Your task to perform on an android device: uninstall "Indeed Job Search" Image 0: 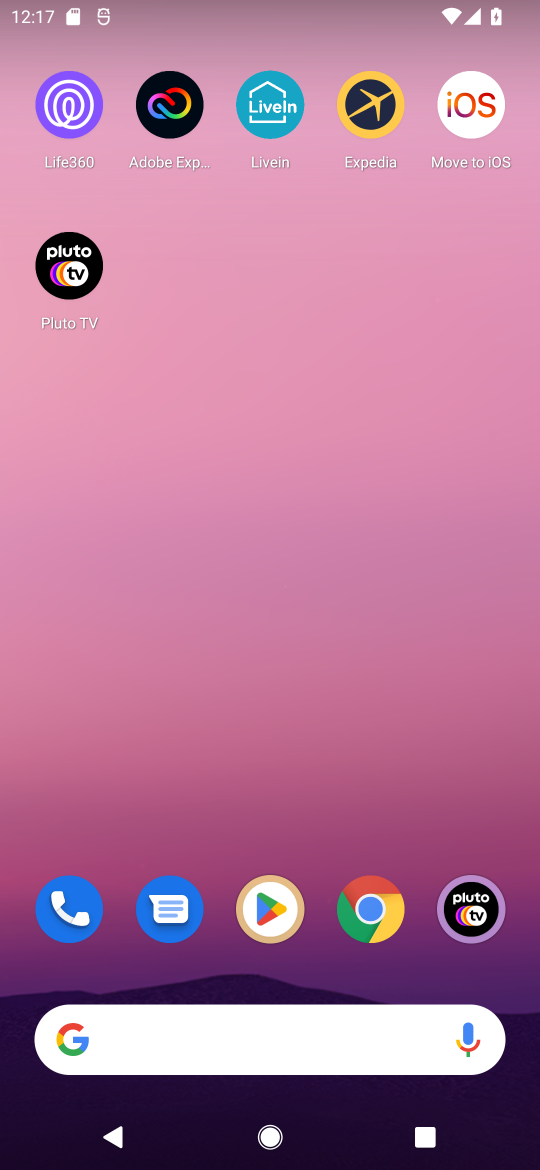
Step 0: click (267, 911)
Your task to perform on an android device: uninstall "Indeed Job Search" Image 1: 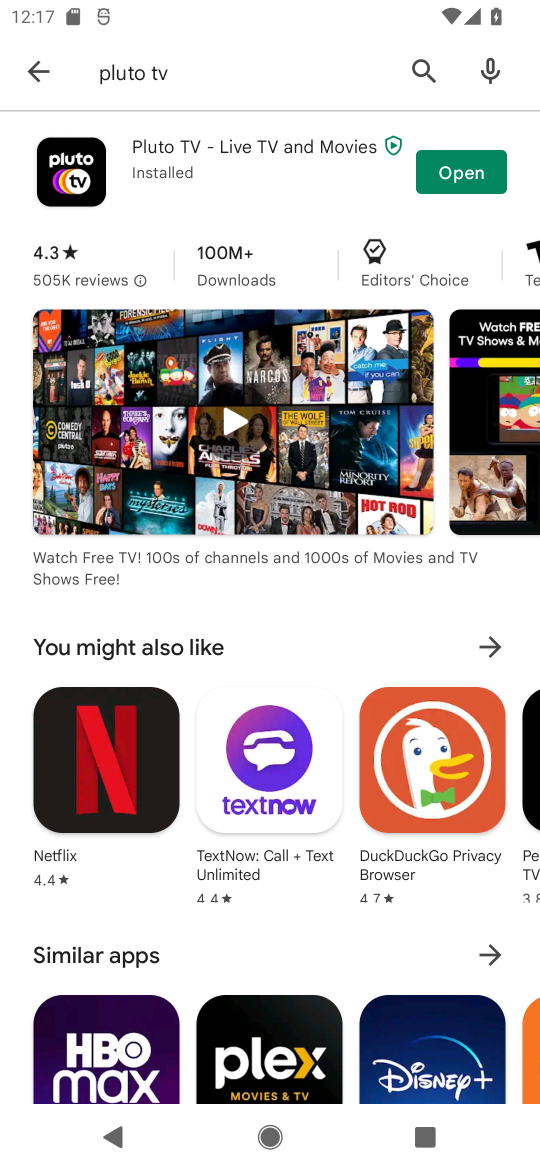
Step 1: click (408, 51)
Your task to perform on an android device: uninstall "Indeed Job Search" Image 2: 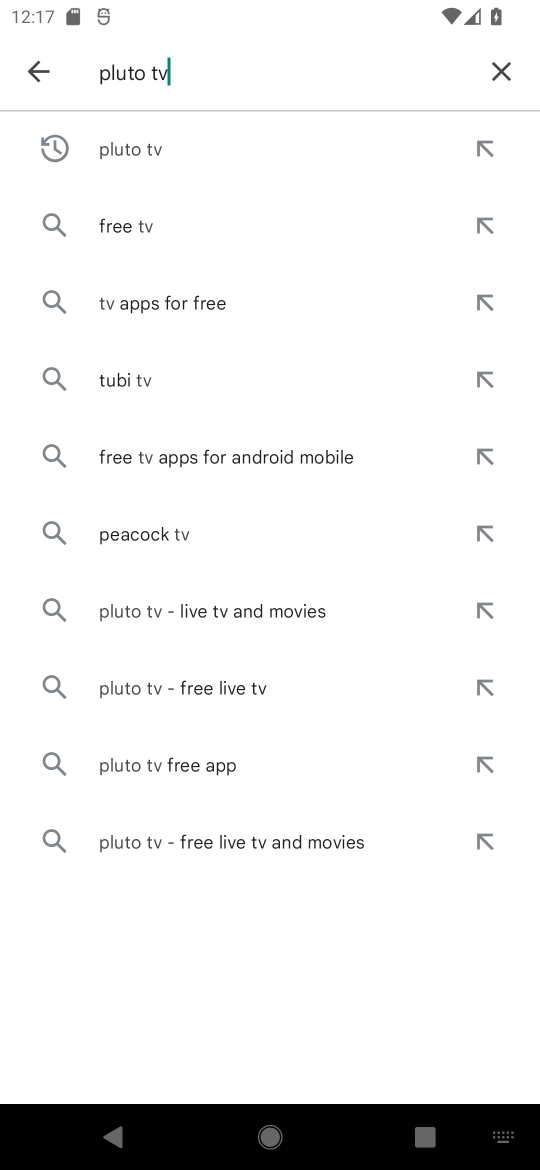
Step 2: click (510, 72)
Your task to perform on an android device: uninstall "Indeed Job Search" Image 3: 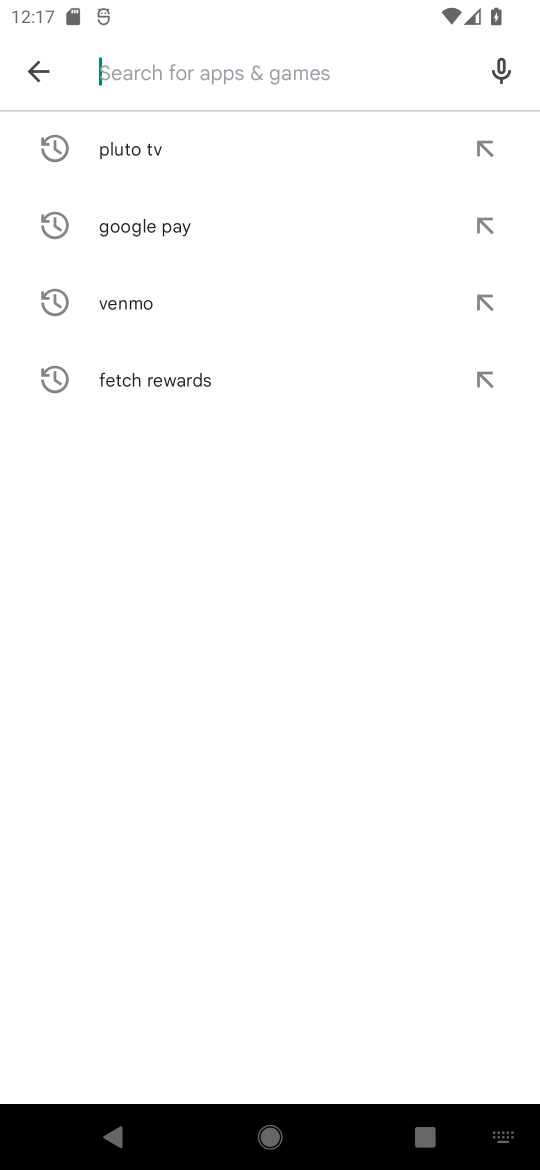
Step 3: click (148, 61)
Your task to perform on an android device: uninstall "Indeed Job Search" Image 4: 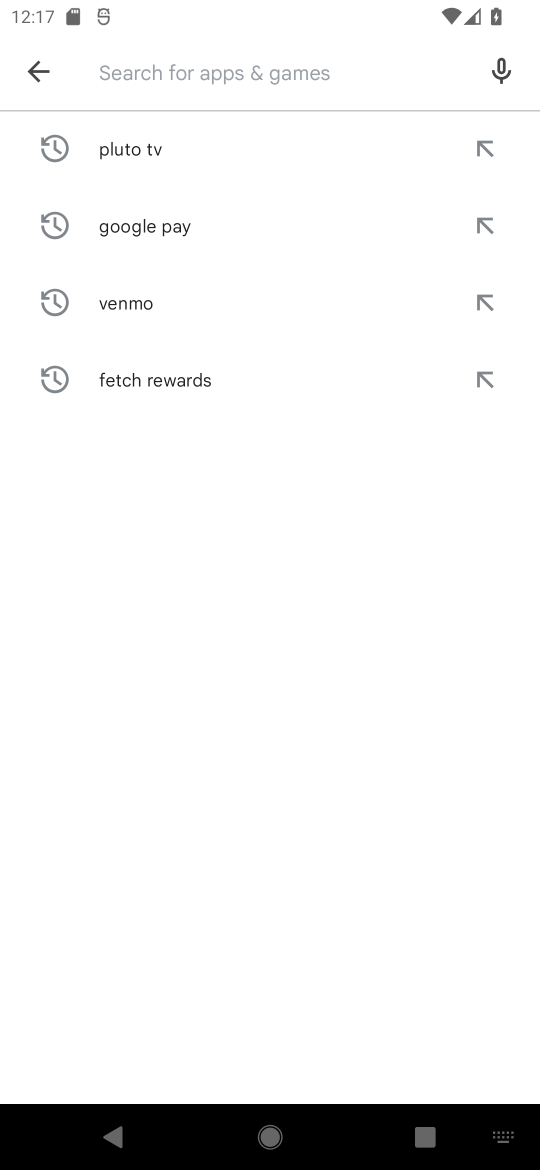
Step 4: type "indeed job"
Your task to perform on an android device: uninstall "Indeed Job Search" Image 5: 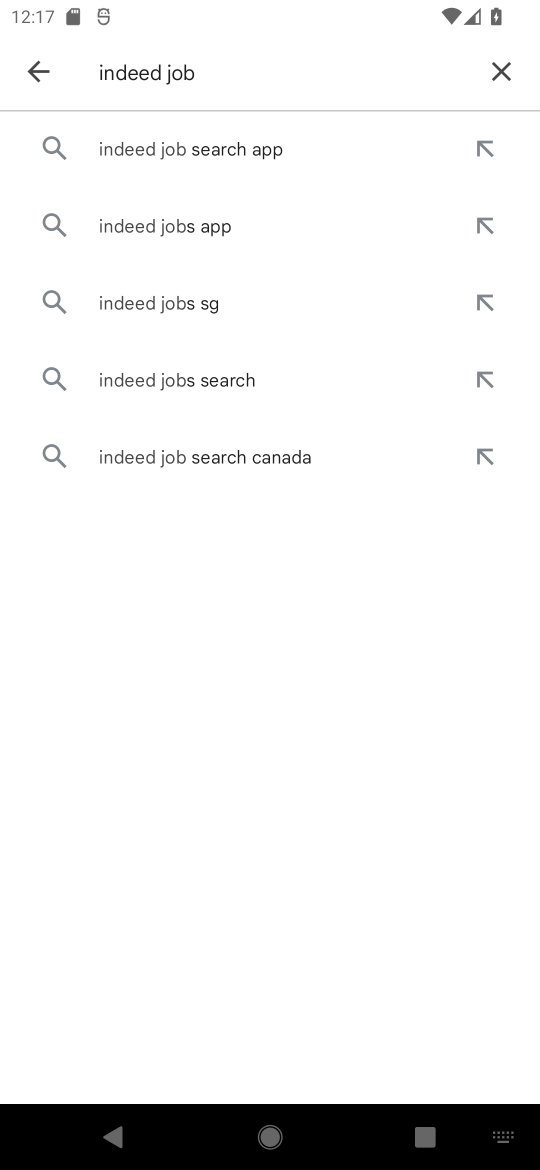
Step 5: click (191, 151)
Your task to perform on an android device: uninstall "Indeed Job Search" Image 6: 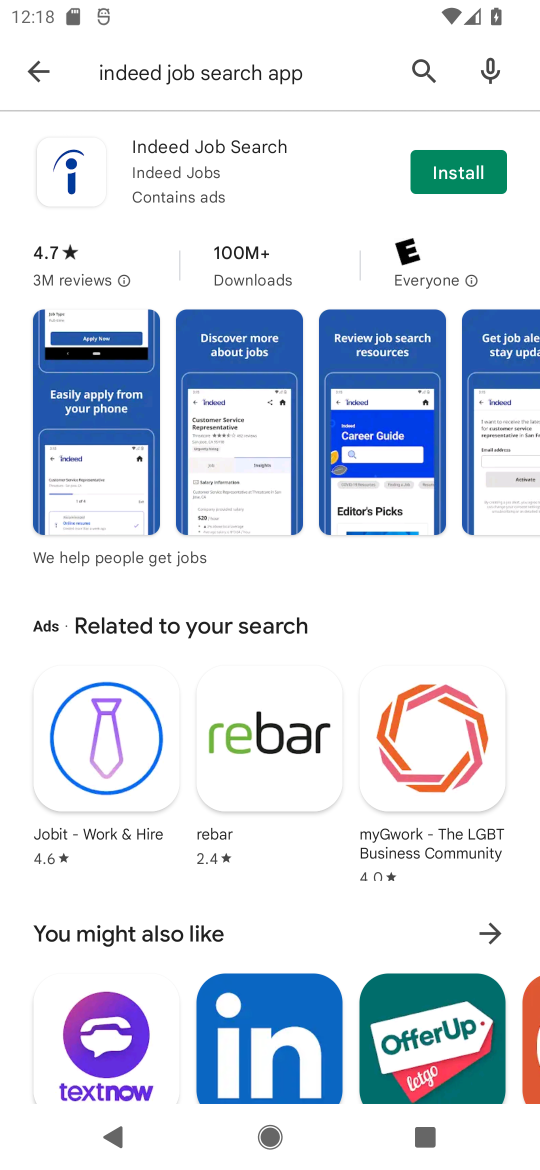
Step 6: task complete